Your task to perform on an android device: change your default location settings in chrome Image 0: 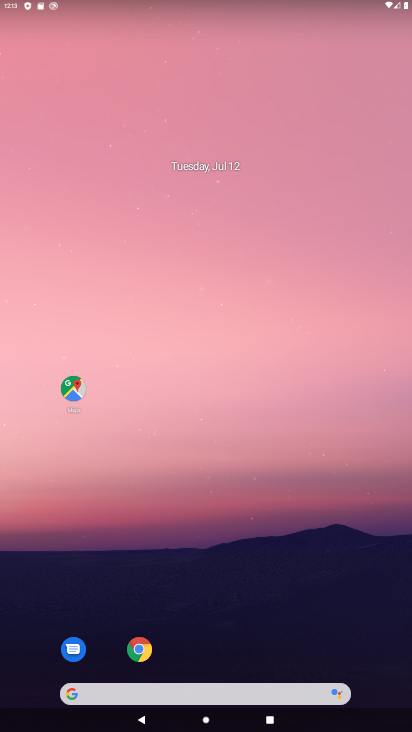
Step 0: drag from (317, 634) to (304, 148)
Your task to perform on an android device: change your default location settings in chrome Image 1: 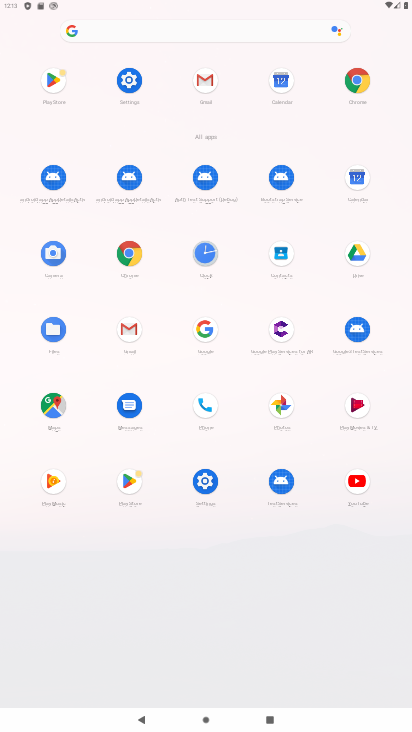
Step 1: click (351, 76)
Your task to perform on an android device: change your default location settings in chrome Image 2: 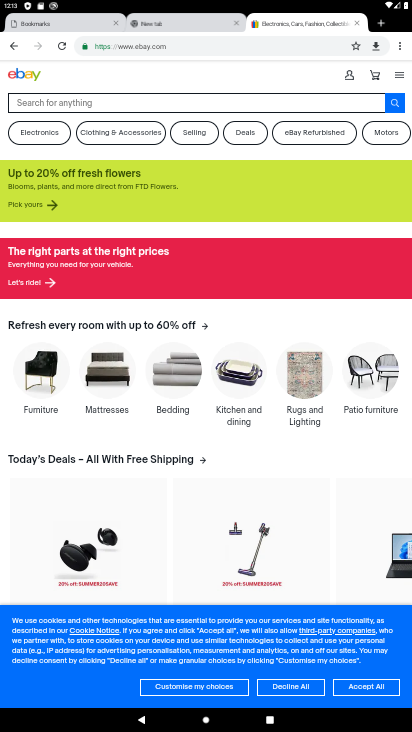
Step 2: click (396, 50)
Your task to perform on an android device: change your default location settings in chrome Image 3: 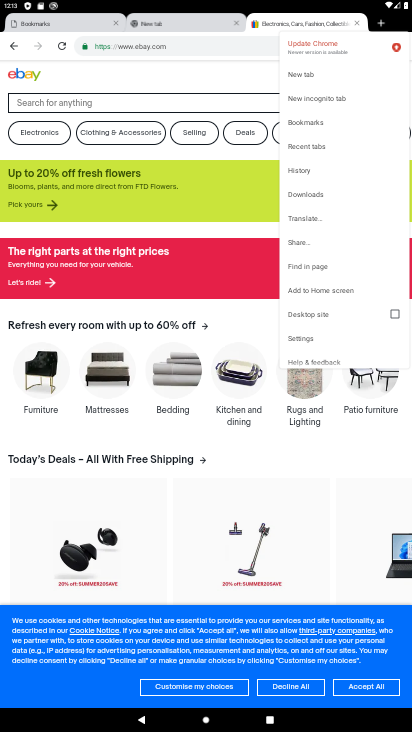
Step 3: click (323, 336)
Your task to perform on an android device: change your default location settings in chrome Image 4: 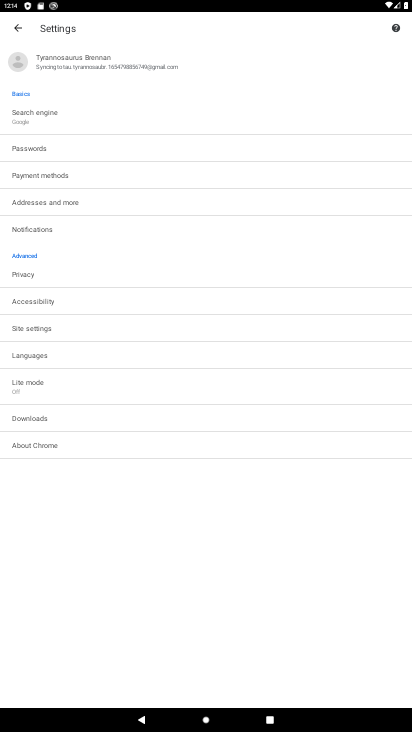
Step 4: click (266, 336)
Your task to perform on an android device: change your default location settings in chrome Image 5: 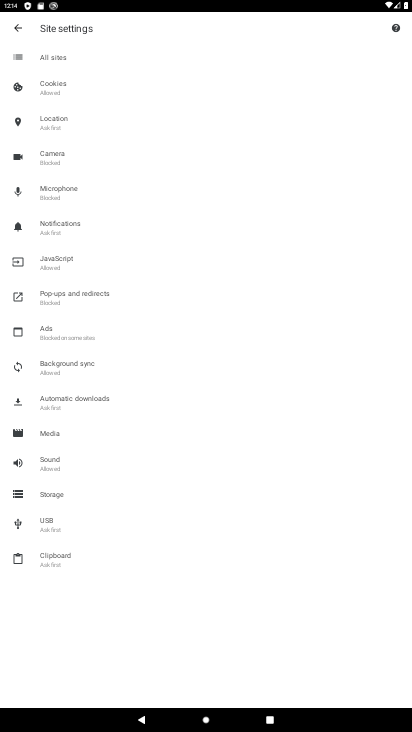
Step 5: task complete